Your task to perform on an android device: Play the last video I watched on Youtube Image 0: 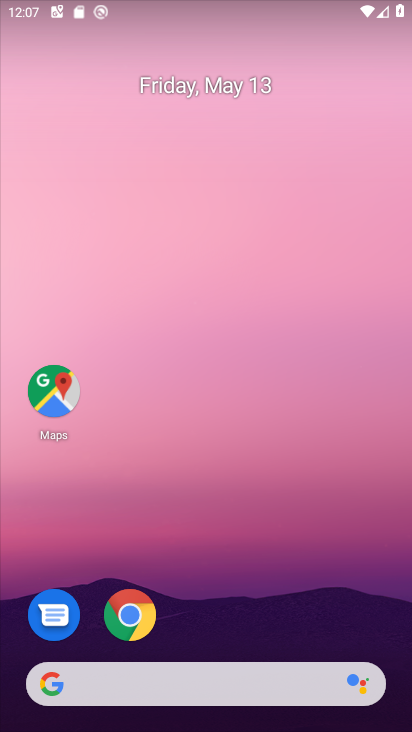
Step 0: drag from (260, 557) to (310, 92)
Your task to perform on an android device: Play the last video I watched on Youtube Image 1: 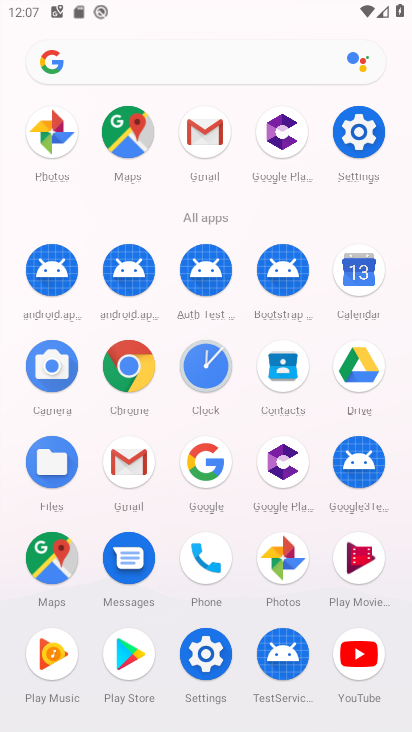
Step 1: click (359, 673)
Your task to perform on an android device: Play the last video I watched on Youtube Image 2: 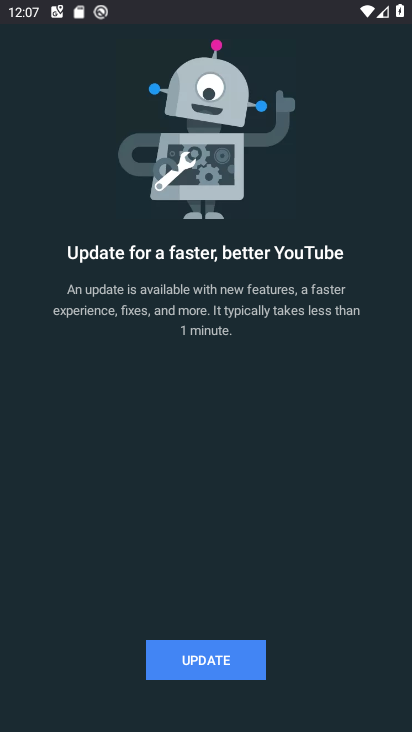
Step 2: click (208, 647)
Your task to perform on an android device: Play the last video I watched on Youtube Image 3: 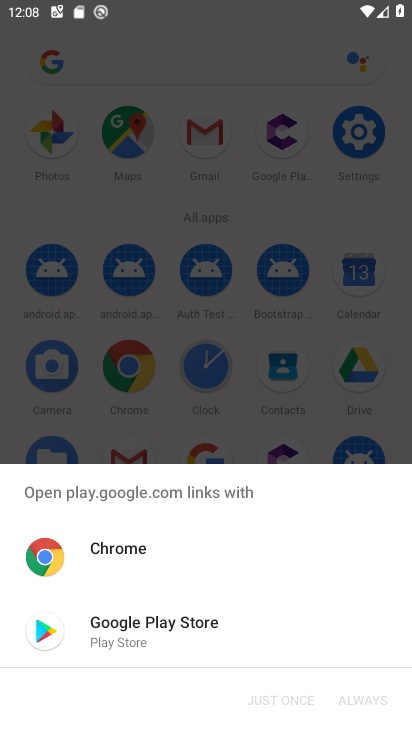
Step 3: click (179, 609)
Your task to perform on an android device: Play the last video I watched on Youtube Image 4: 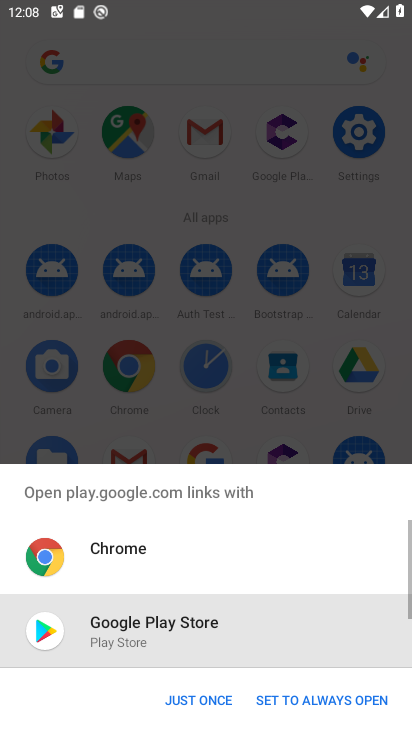
Step 4: click (179, 700)
Your task to perform on an android device: Play the last video I watched on Youtube Image 5: 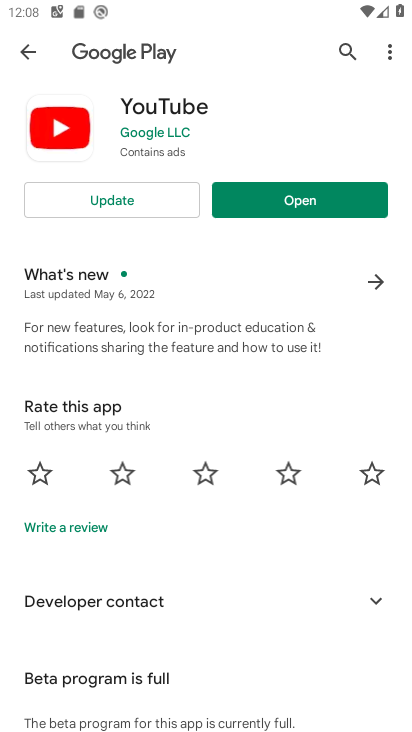
Step 5: click (148, 203)
Your task to perform on an android device: Play the last video I watched on Youtube Image 6: 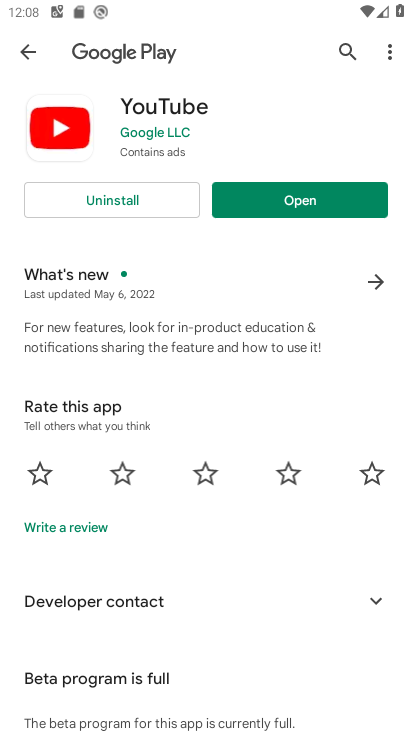
Step 6: click (352, 189)
Your task to perform on an android device: Play the last video I watched on Youtube Image 7: 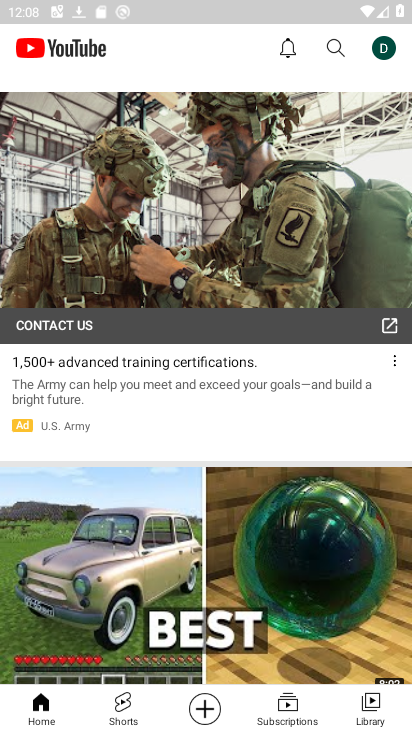
Step 7: click (379, 701)
Your task to perform on an android device: Play the last video I watched on Youtube Image 8: 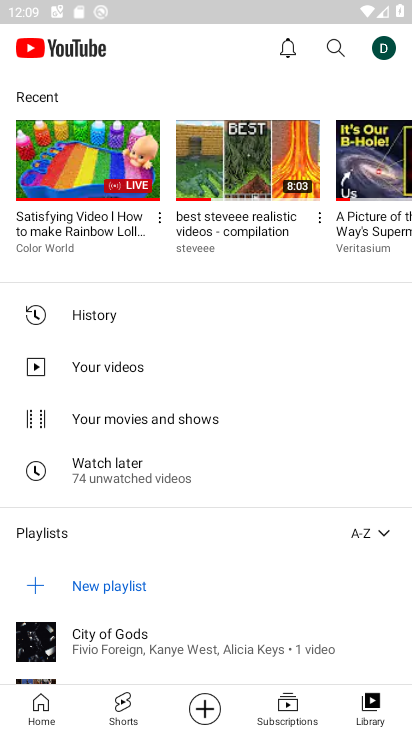
Step 8: click (103, 168)
Your task to perform on an android device: Play the last video I watched on Youtube Image 9: 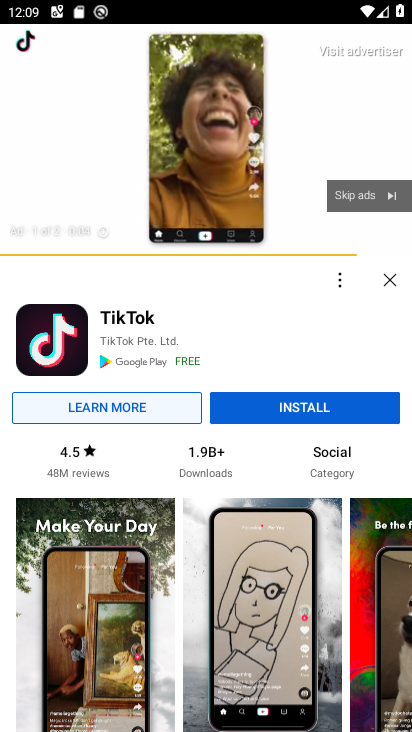
Step 9: task complete